Your task to perform on an android device: turn on wifi Image 0: 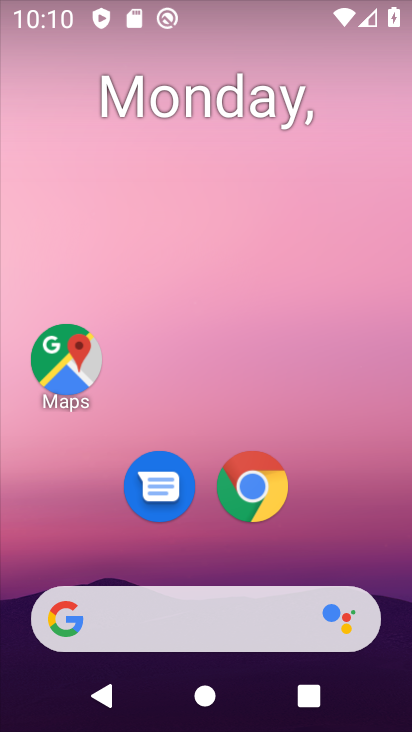
Step 0: drag from (342, 546) to (306, 169)
Your task to perform on an android device: turn on wifi Image 1: 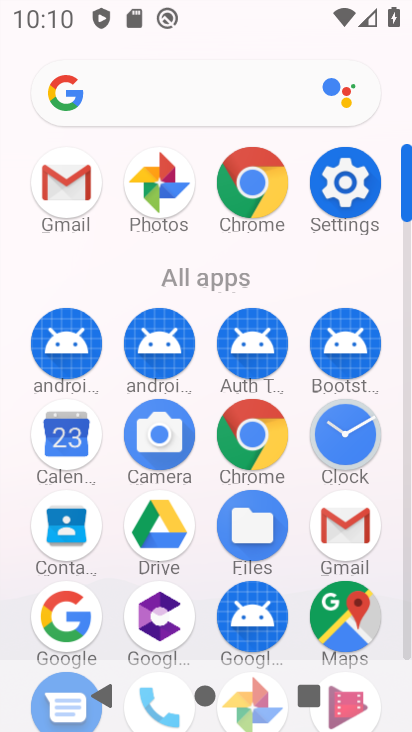
Step 1: click (348, 180)
Your task to perform on an android device: turn on wifi Image 2: 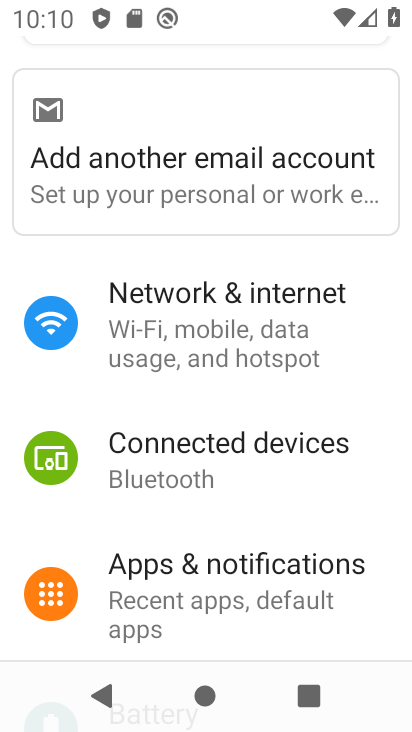
Step 2: drag from (253, 491) to (310, 378)
Your task to perform on an android device: turn on wifi Image 3: 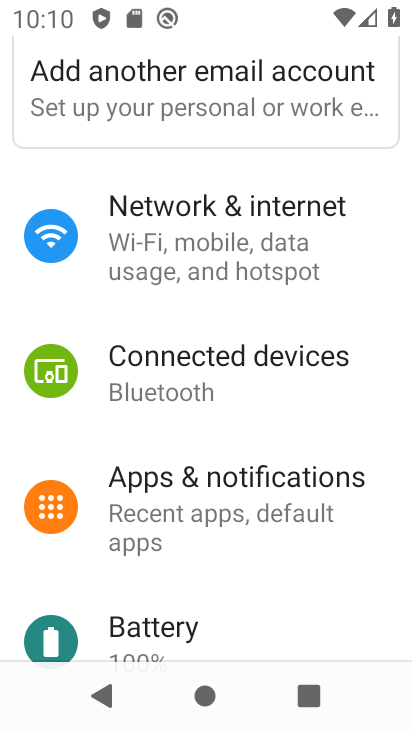
Step 3: click (282, 204)
Your task to perform on an android device: turn on wifi Image 4: 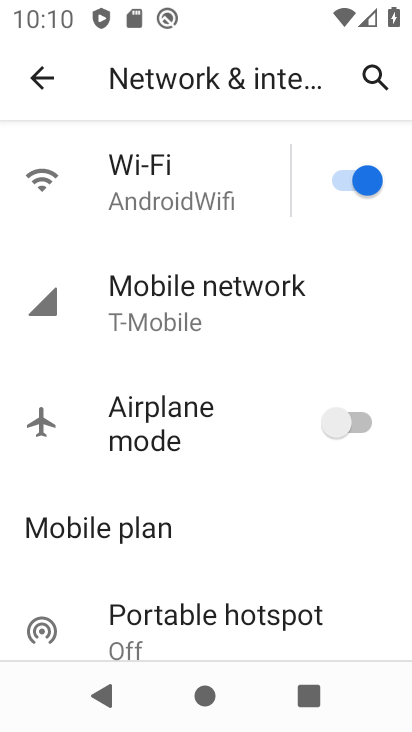
Step 4: task complete